Your task to perform on an android device: clear all cookies in the chrome app Image 0: 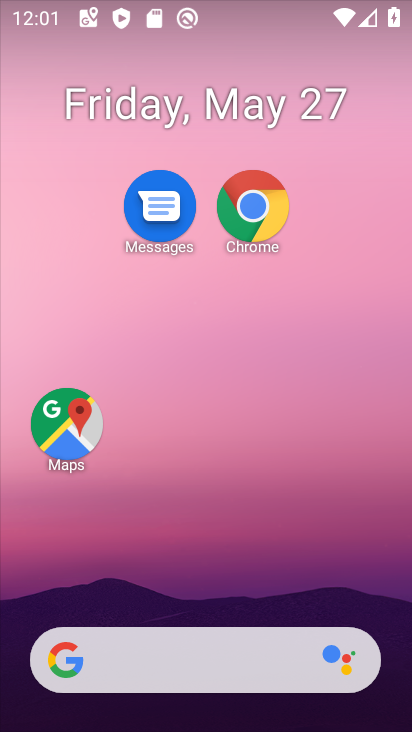
Step 0: click (252, 191)
Your task to perform on an android device: clear all cookies in the chrome app Image 1: 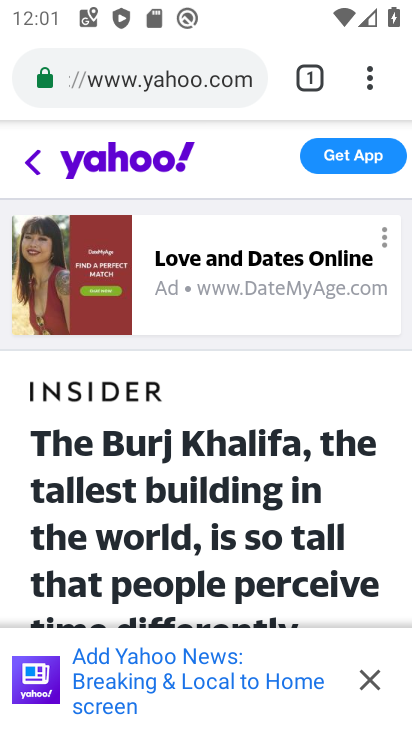
Step 1: click (374, 74)
Your task to perform on an android device: clear all cookies in the chrome app Image 2: 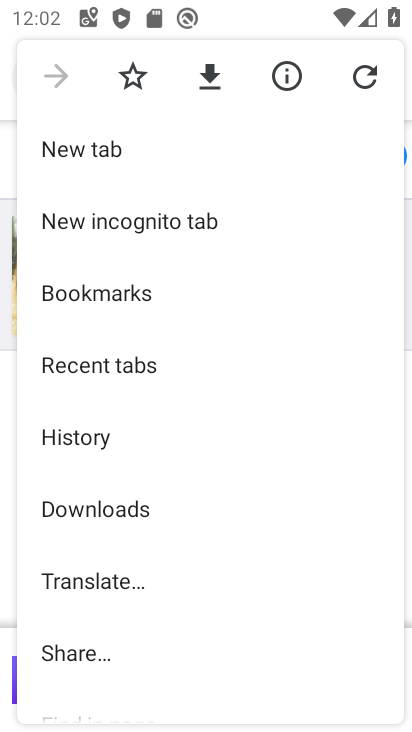
Step 2: click (126, 433)
Your task to perform on an android device: clear all cookies in the chrome app Image 3: 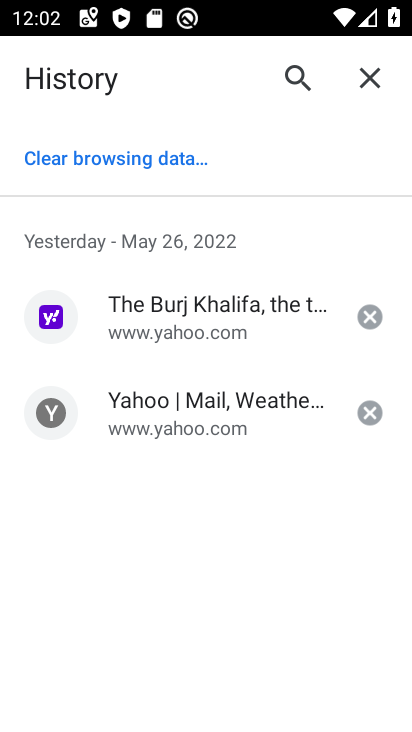
Step 3: click (128, 165)
Your task to perform on an android device: clear all cookies in the chrome app Image 4: 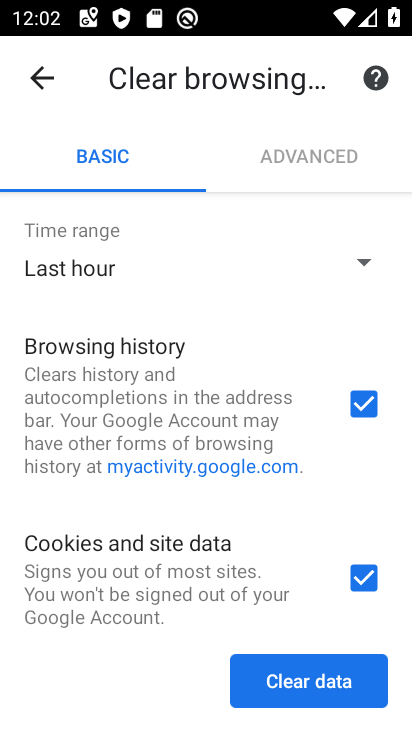
Step 4: click (351, 401)
Your task to perform on an android device: clear all cookies in the chrome app Image 5: 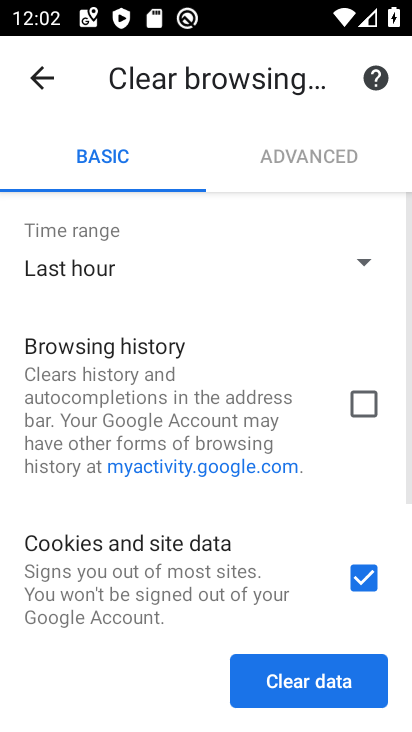
Step 5: click (324, 664)
Your task to perform on an android device: clear all cookies in the chrome app Image 6: 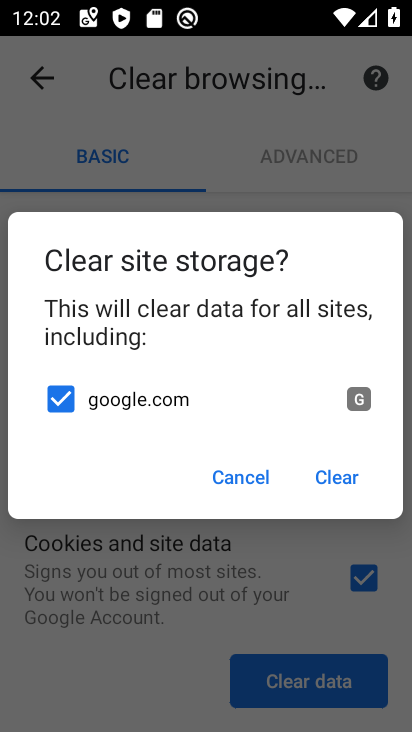
Step 6: task complete